Your task to perform on an android device: set the stopwatch Image 0: 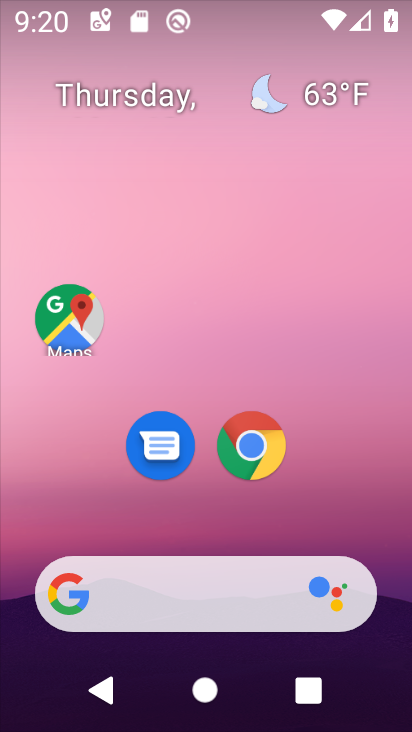
Step 0: drag from (192, 541) to (263, 177)
Your task to perform on an android device: set the stopwatch Image 1: 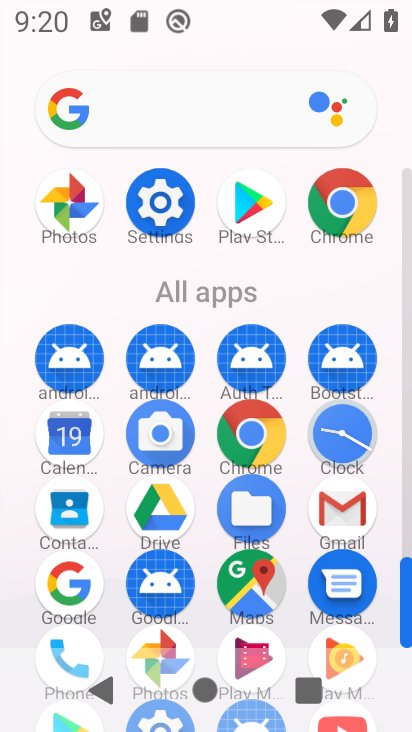
Step 1: click (331, 441)
Your task to perform on an android device: set the stopwatch Image 2: 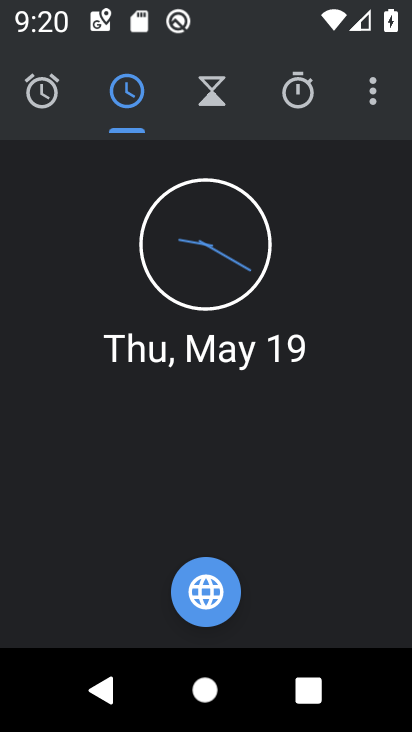
Step 2: click (383, 98)
Your task to perform on an android device: set the stopwatch Image 3: 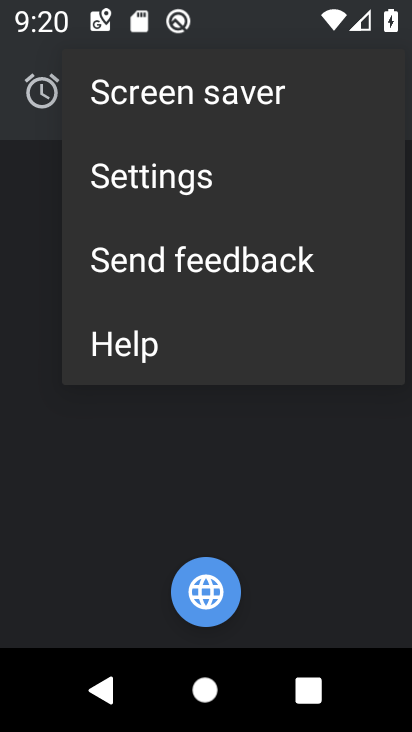
Step 3: click (287, 479)
Your task to perform on an android device: set the stopwatch Image 4: 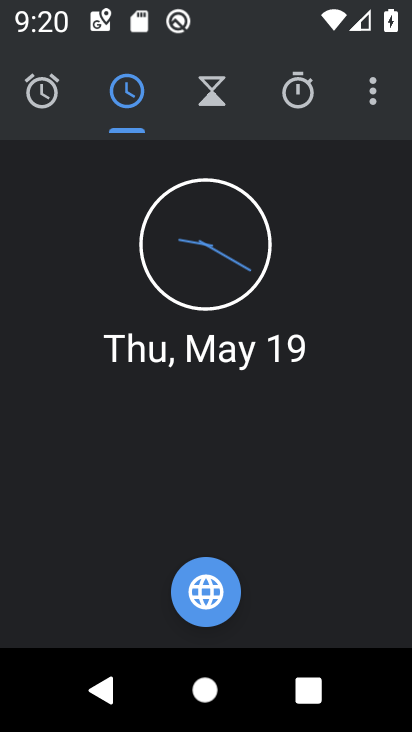
Step 4: click (306, 105)
Your task to perform on an android device: set the stopwatch Image 5: 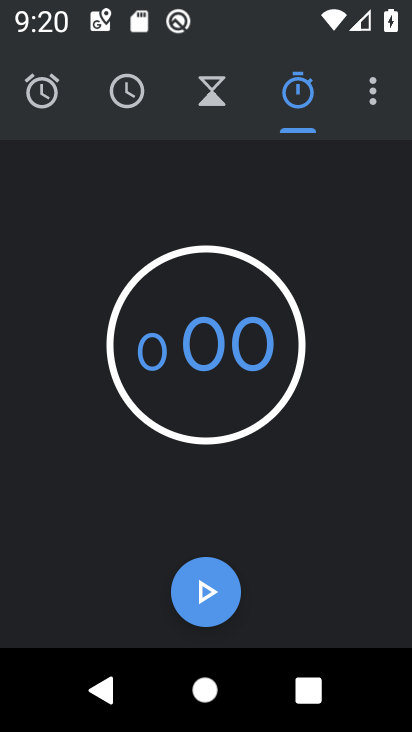
Step 5: click (201, 602)
Your task to perform on an android device: set the stopwatch Image 6: 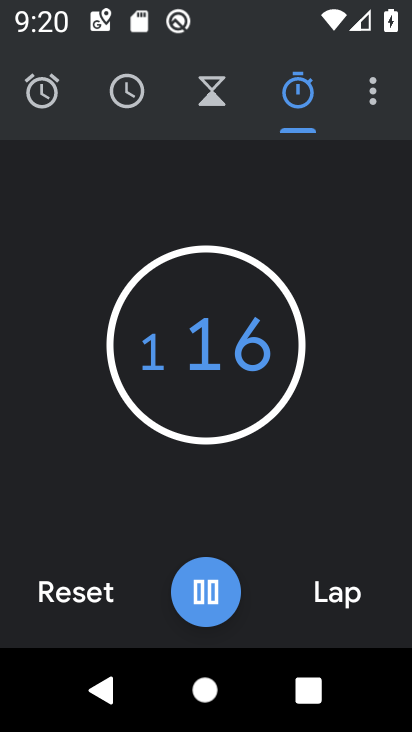
Step 6: task complete